Your task to perform on an android device: open app "Google Find My Device" (install if not already installed) Image 0: 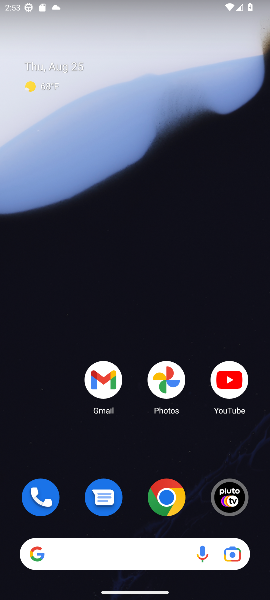
Step 0: drag from (133, 491) to (136, 96)
Your task to perform on an android device: open app "Google Find My Device" (install if not already installed) Image 1: 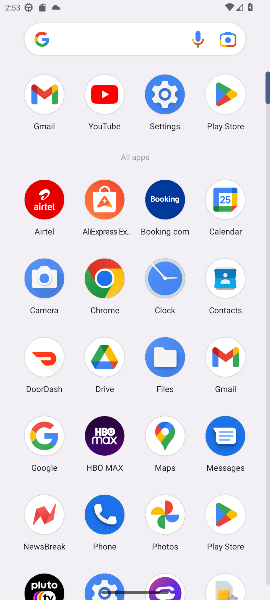
Step 1: click (218, 98)
Your task to perform on an android device: open app "Google Find My Device" (install if not already installed) Image 2: 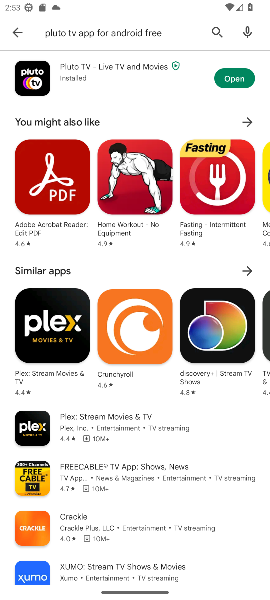
Step 2: click (18, 34)
Your task to perform on an android device: open app "Google Find My Device" (install if not already installed) Image 3: 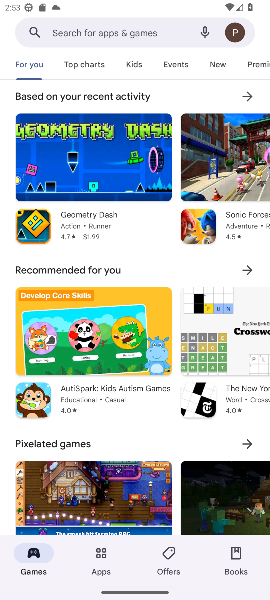
Step 3: click (99, 28)
Your task to perform on an android device: open app "Google Find My Device" (install if not already installed) Image 4: 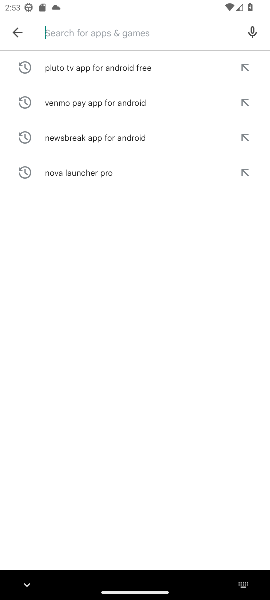
Step 4: type "Google Find My Device "
Your task to perform on an android device: open app "Google Find My Device" (install if not already installed) Image 5: 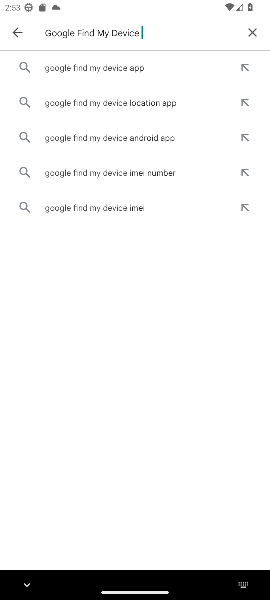
Step 5: click (77, 62)
Your task to perform on an android device: open app "Google Find My Device" (install if not already installed) Image 6: 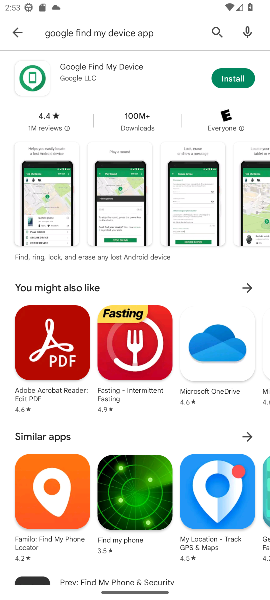
Step 6: click (240, 70)
Your task to perform on an android device: open app "Google Find My Device" (install if not already installed) Image 7: 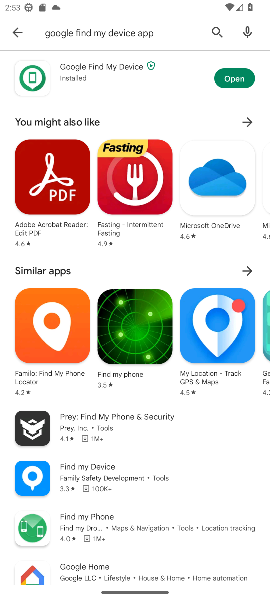
Step 7: click (234, 70)
Your task to perform on an android device: open app "Google Find My Device" (install if not already installed) Image 8: 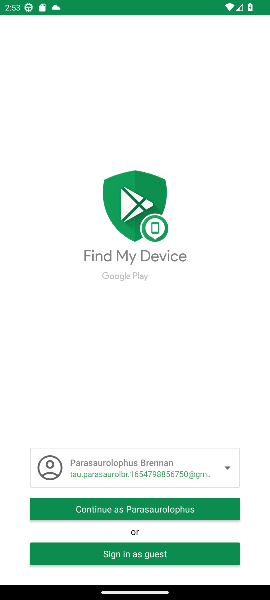
Step 8: task complete